Your task to perform on an android device: Show me some nice wallpapers for my tablet Image 0: 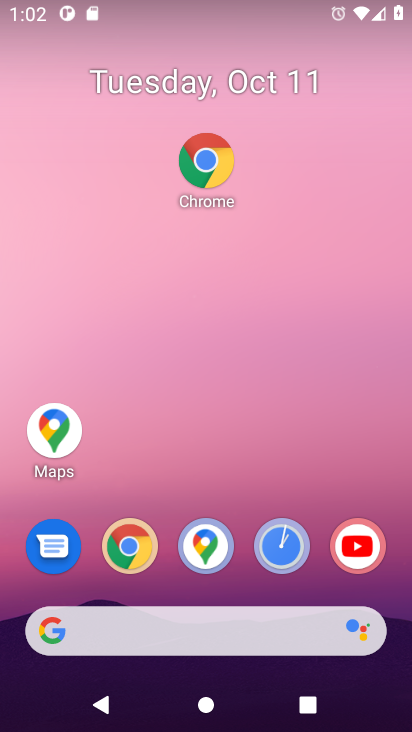
Step 0: click (130, 545)
Your task to perform on an android device: Show me some nice wallpapers for my tablet Image 1: 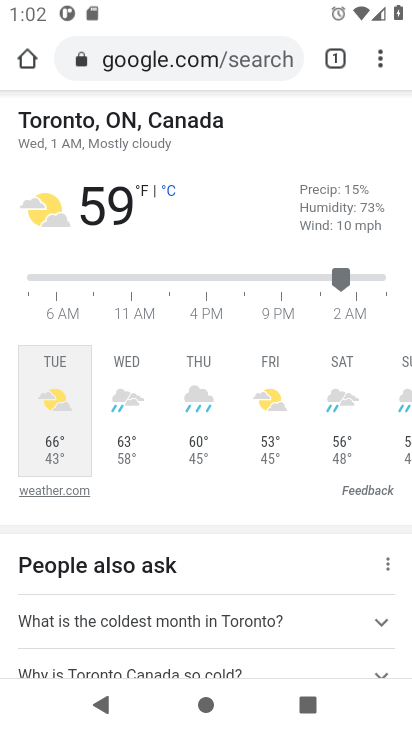
Step 1: click (183, 65)
Your task to perform on an android device: Show me some nice wallpapers for my tablet Image 2: 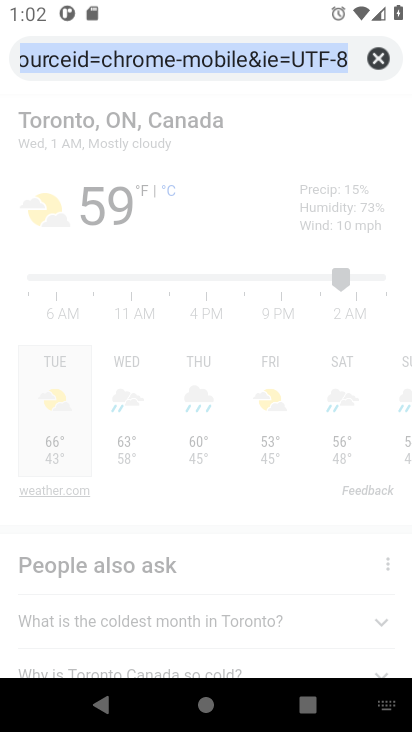
Step 2: type "nice wallpapers for tablet"
Your task to perform on an android device: Show me some nice wallpapers for my tablet Image 3: 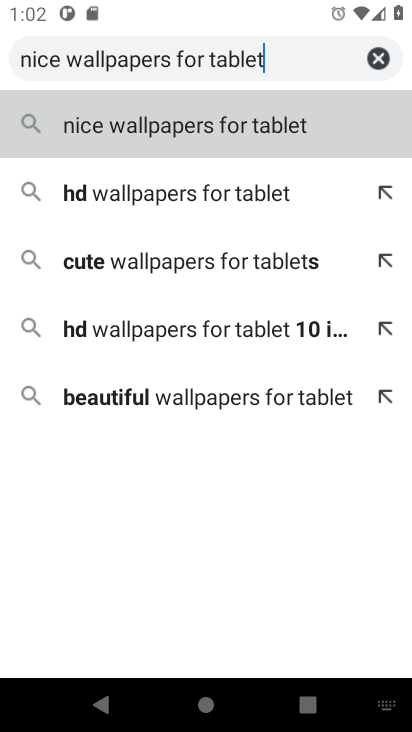
Step 3: press enter
Your task to perform on an android device: Show me some nice wallpapers for my tablet Image 4: 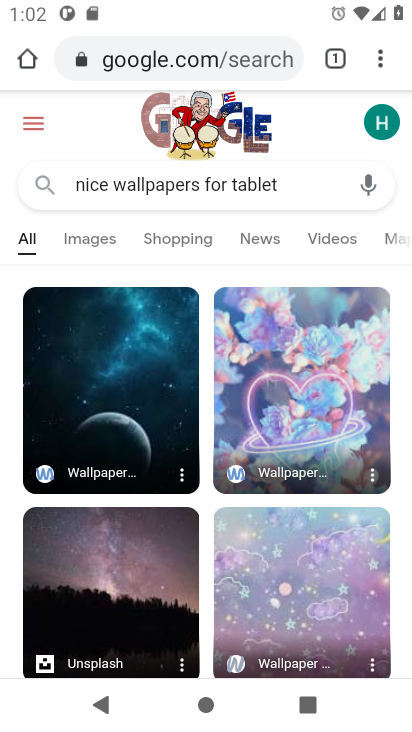
Step 4: click (97, 238)
Your task to perform on an android device: Show me some nice wallpapers for my tablet Image 5: 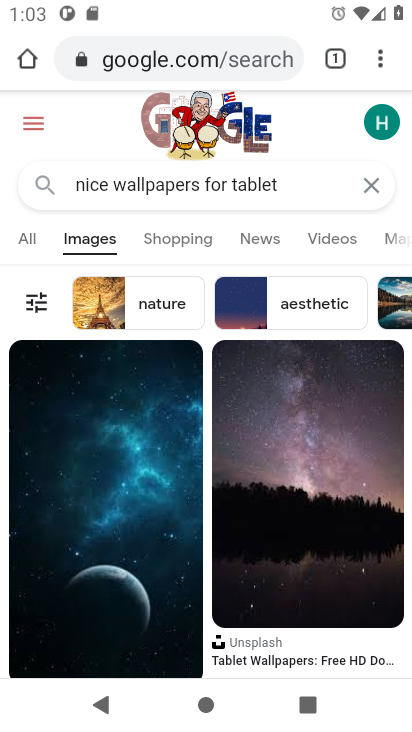
Step 5: task complete